Your task to perform on an android device: Clear all items from cart on ebay. Search for "usb-c to usb-a" on ebay, select the first entry, add it to the cart, then select checkout. Image 0: 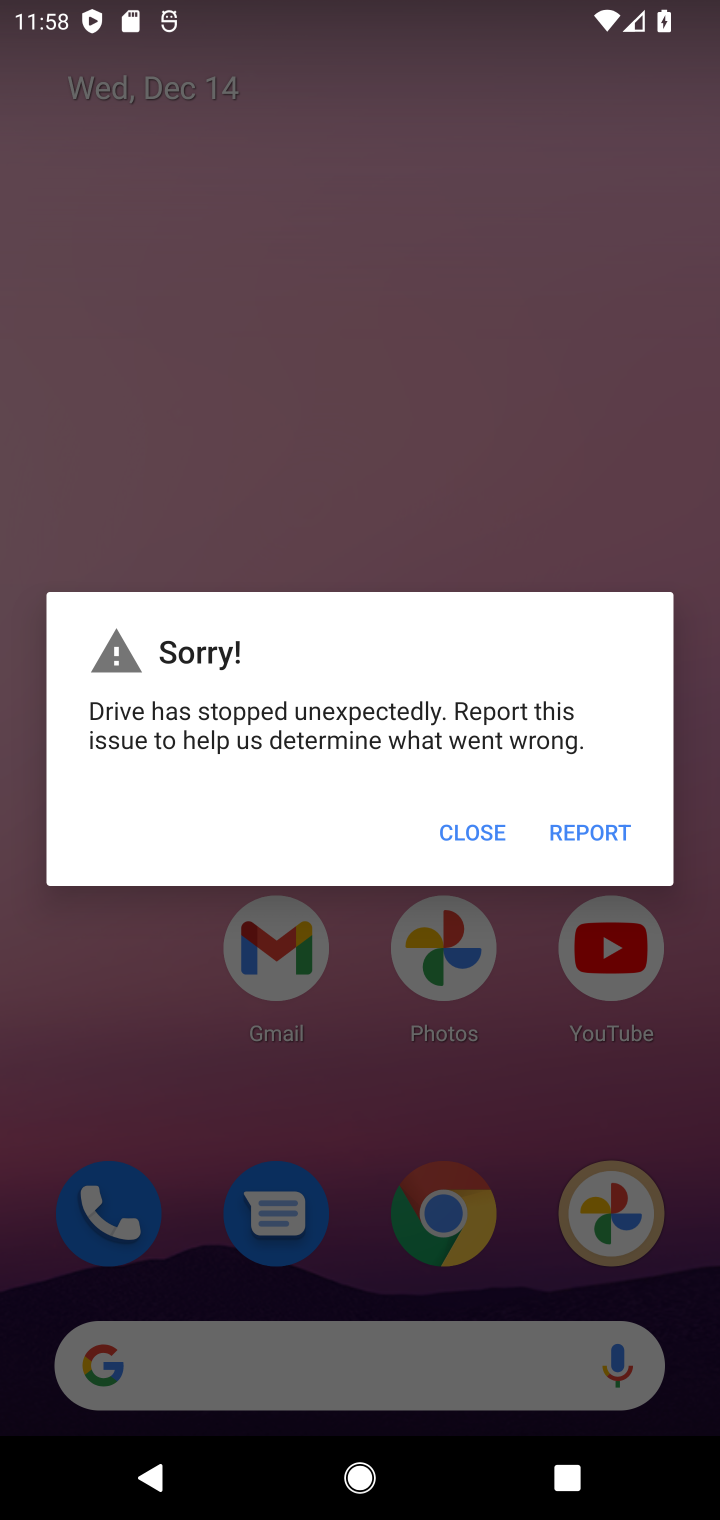
Step 0: click (456, 856)
Your task to perform on an android device: Clear all items from cart on ebay. Search for "usb-c to usb-a" on ebay, select the first entry, add it to the cart, then select checkout. Image 1: 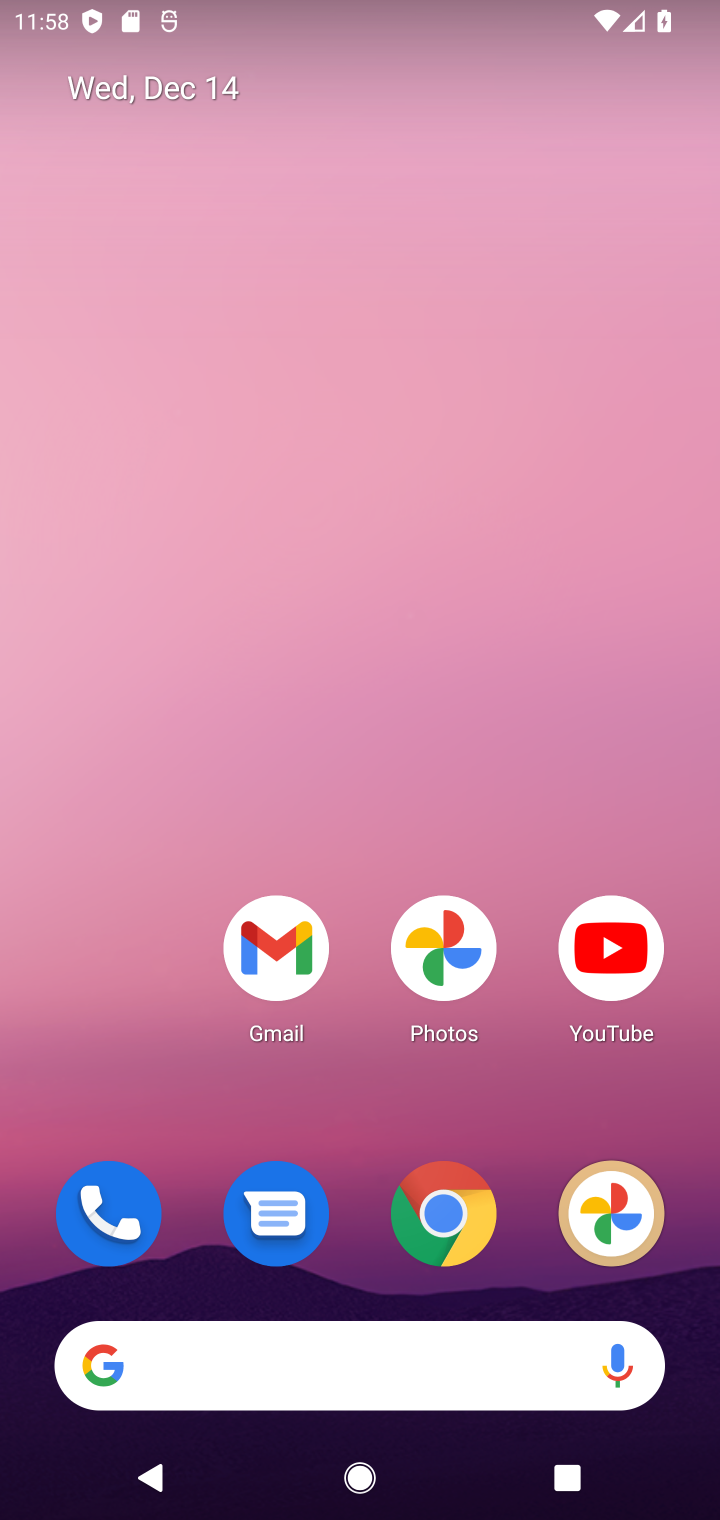
Step 1: click (451, 1253)
Your task to perform on an android device: Clear all items from cart on ebay. Search for "usb-c to usb-a" on ebay, select the first entry, add it to the cart, then select checkout. Image 2: 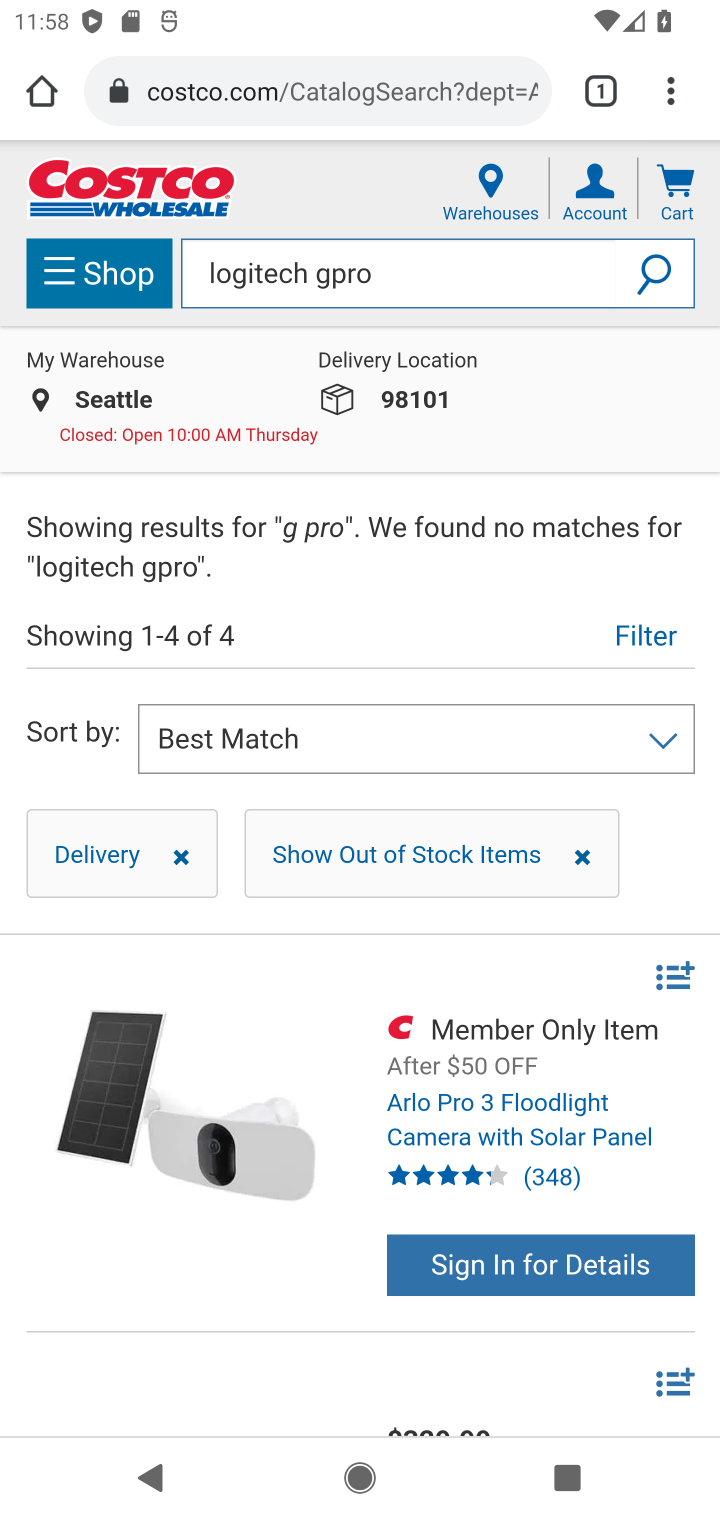
Step 2: click (251, 107)
Your task to perform on an android device: Clear all items from cart on ebay. Search for "usb-c to usb-a" on ebay, select the first entry, add it to the cart, then select checkout. Image 3: 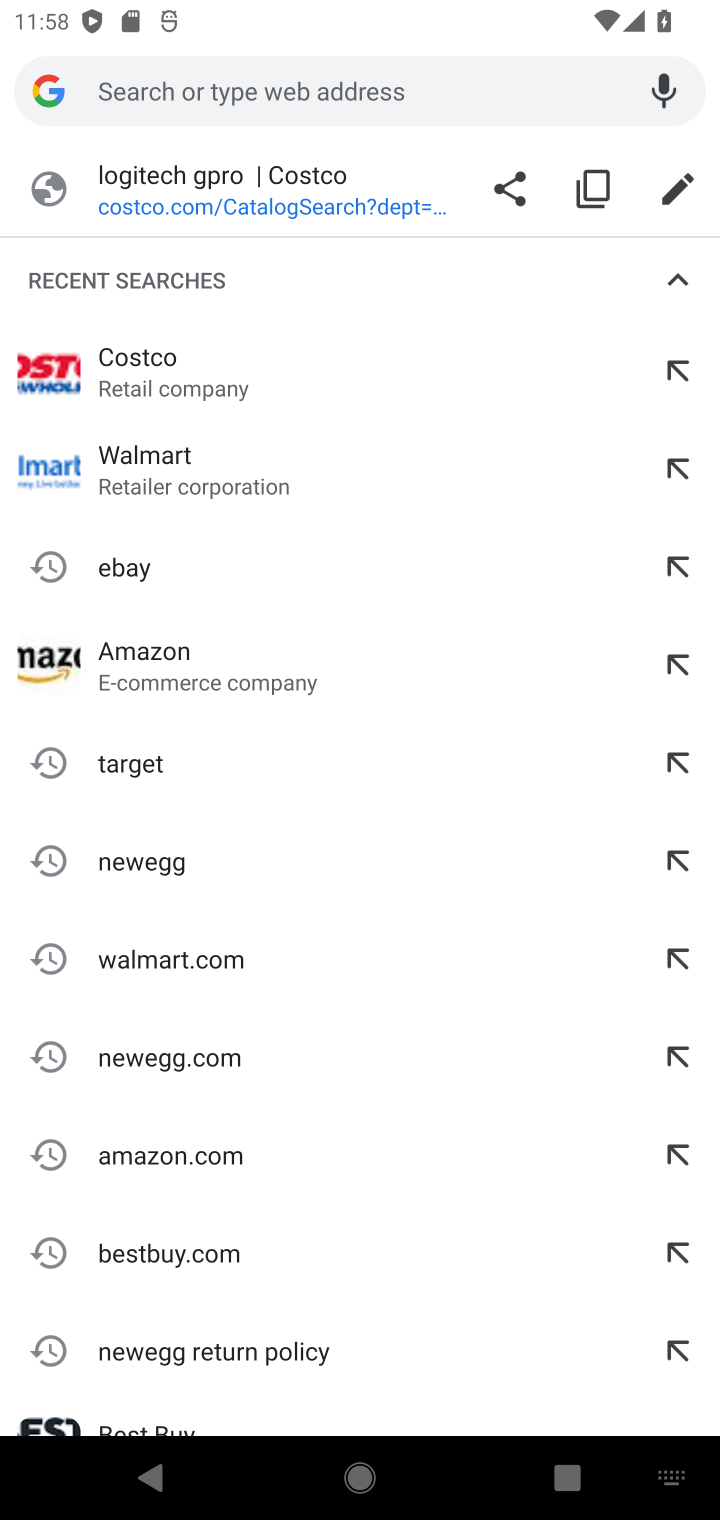
Step 3: click (239, 562)
Your task to perform on an android device: Clear all items from cart on ebay. Search for "usb-c to usb-a" on ebay, select the first entry, add it to the cart, then select checkout. Image 4: 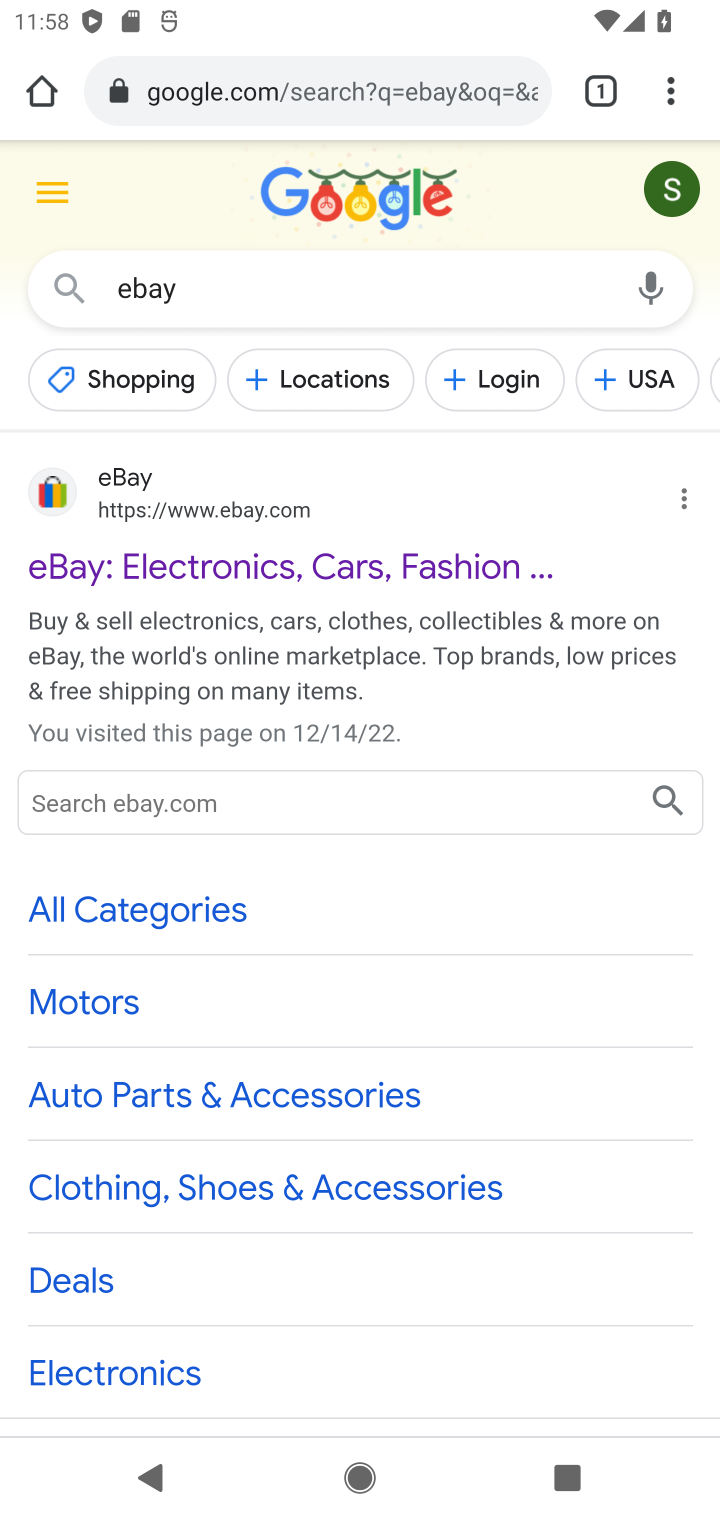
Step 4: click (251, 553)
Your task to perform on an android device: Clear all items from cart on ebay. Search for "usb-c to usb-a" on ebay, select the first entry, add it to the cart, then select checkout. Image 5: 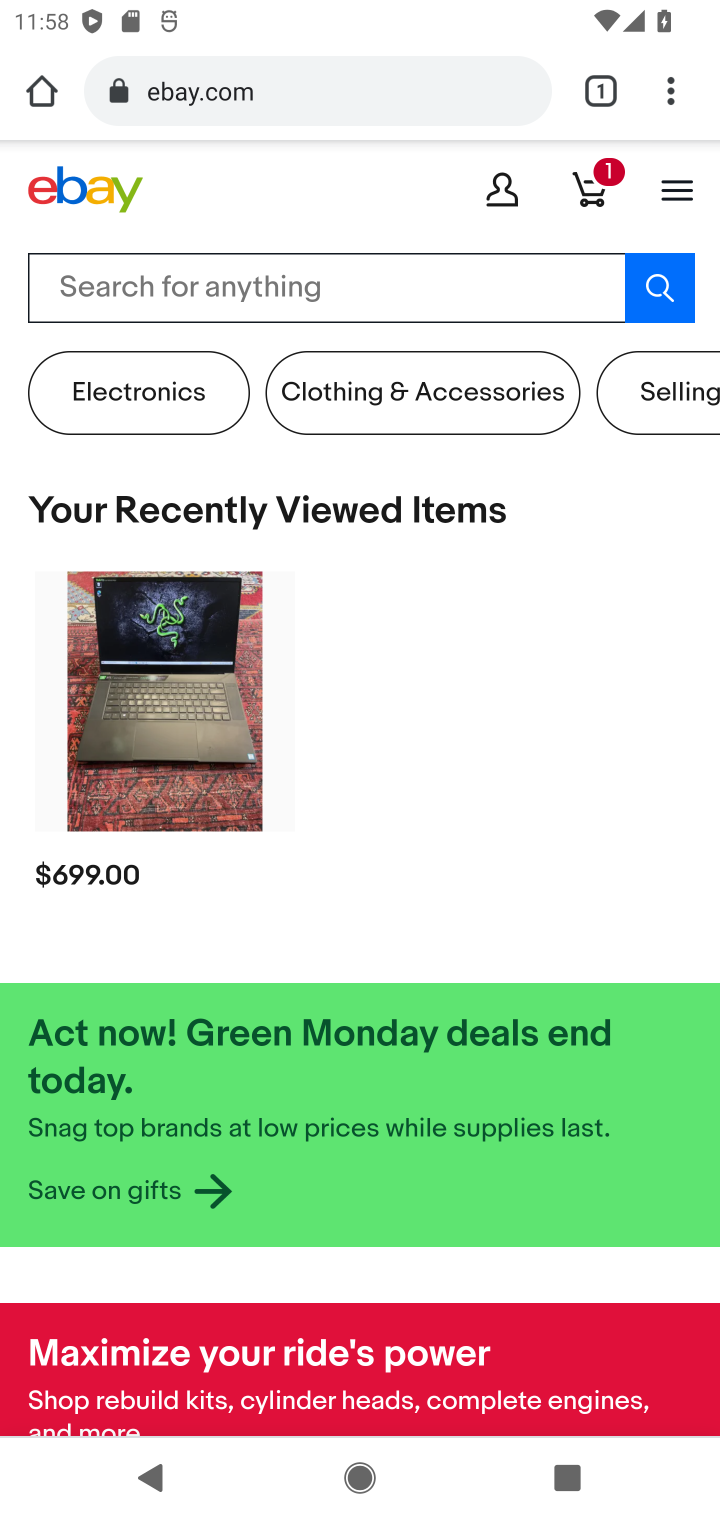
Step 5: click (372, 303)
Your task to perform on an android device: Clear all items from cart on ebay. Search for "usb-c to usb-a" on ebay, select the first entry, add it to the cart, then select checkout. Image 6: 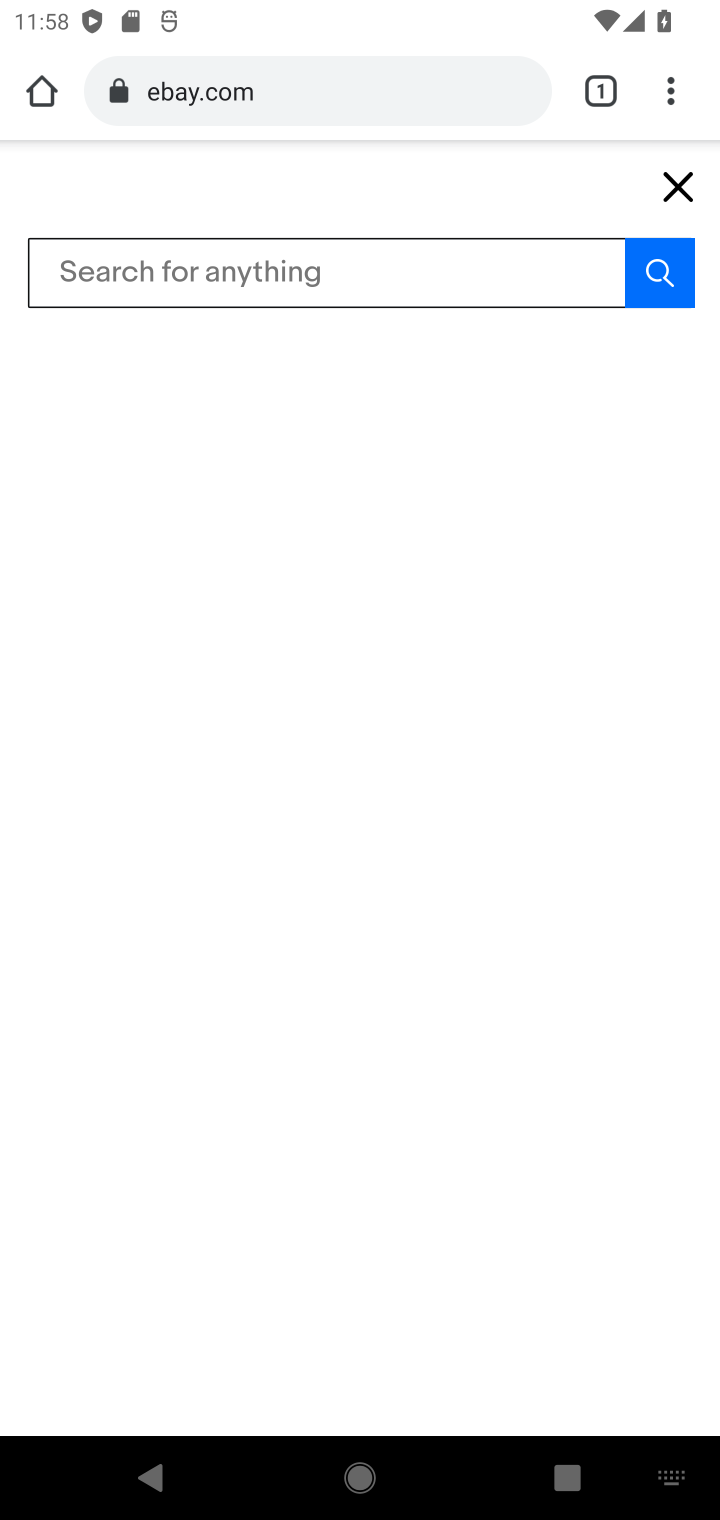
Step 6: type "usb-a "
Your task to perform on an android device: Clear all items from cart on ebay. Search for "usb-c to usb-a" on ebay, select the first entry, add it to the cart, then select checkout. Image 7: 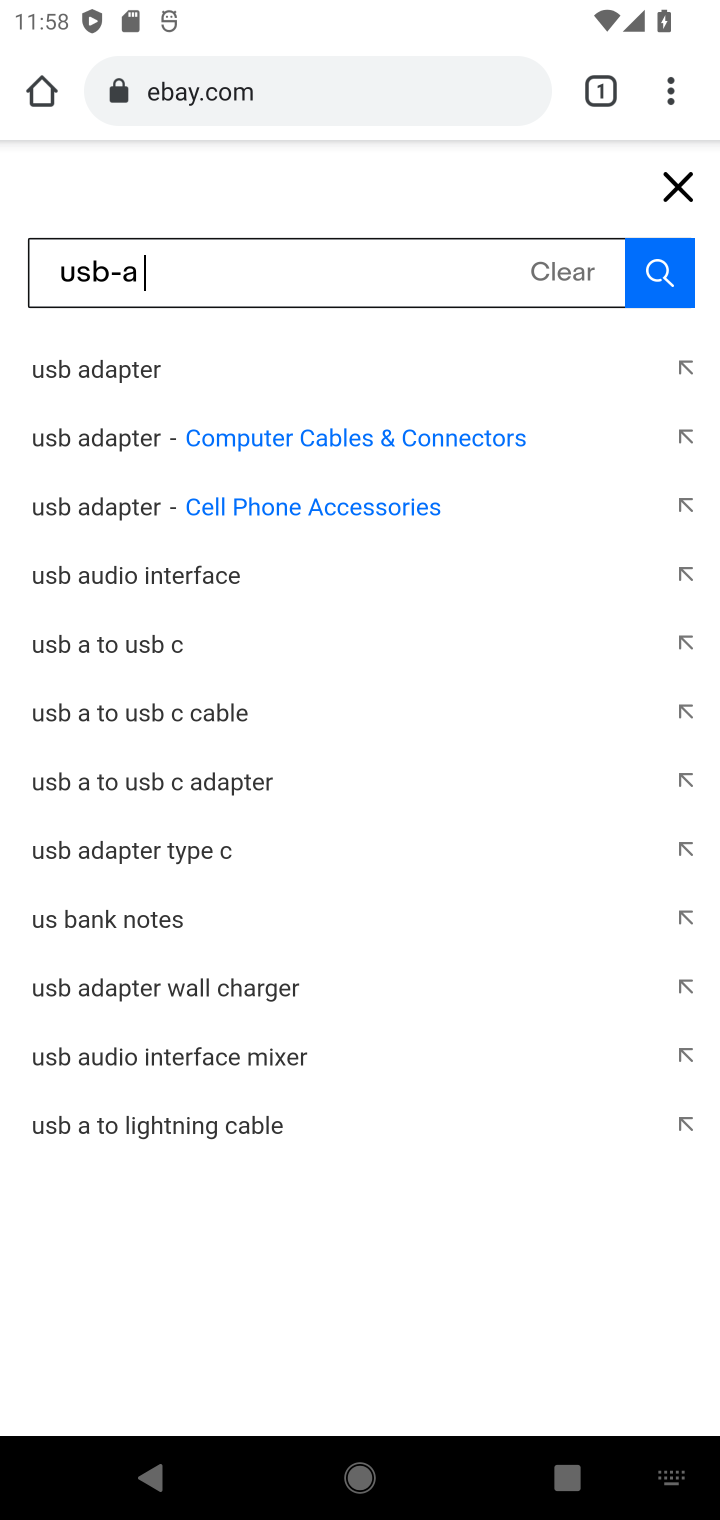
Step 7: type "to usb-c"
Your task to perform on an android device: Clear all items from cart on ebay. Search for "usb-c to usb-a" on ebay, select the first entry, add it to the cart, then select checkout. Image 8: 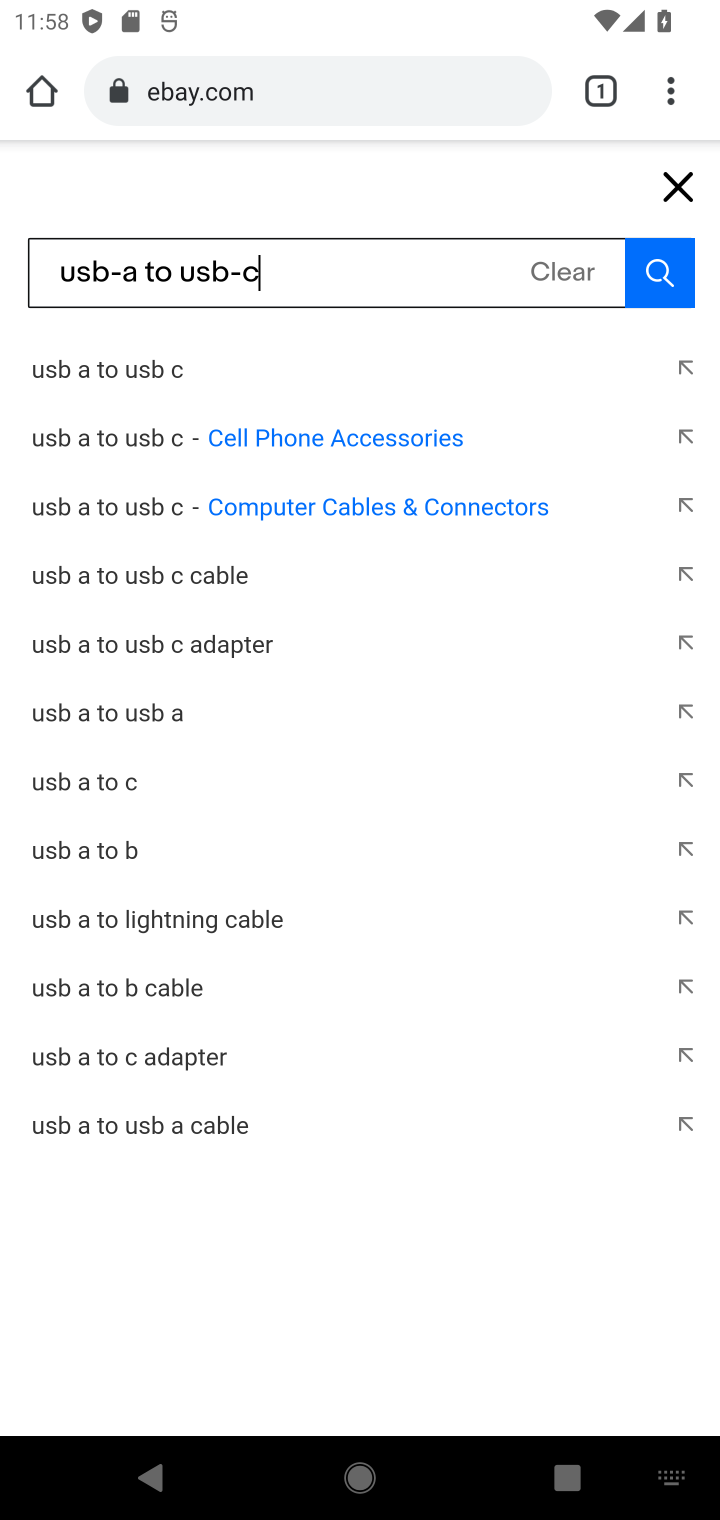
Step 8: click (152, 381)
Your task to perform on an android device: Clear all items from cart on ebay. Search for "usb-c to usb-a" on ebay, select the first entry, add it to the cart, then select checkout. Image 9: 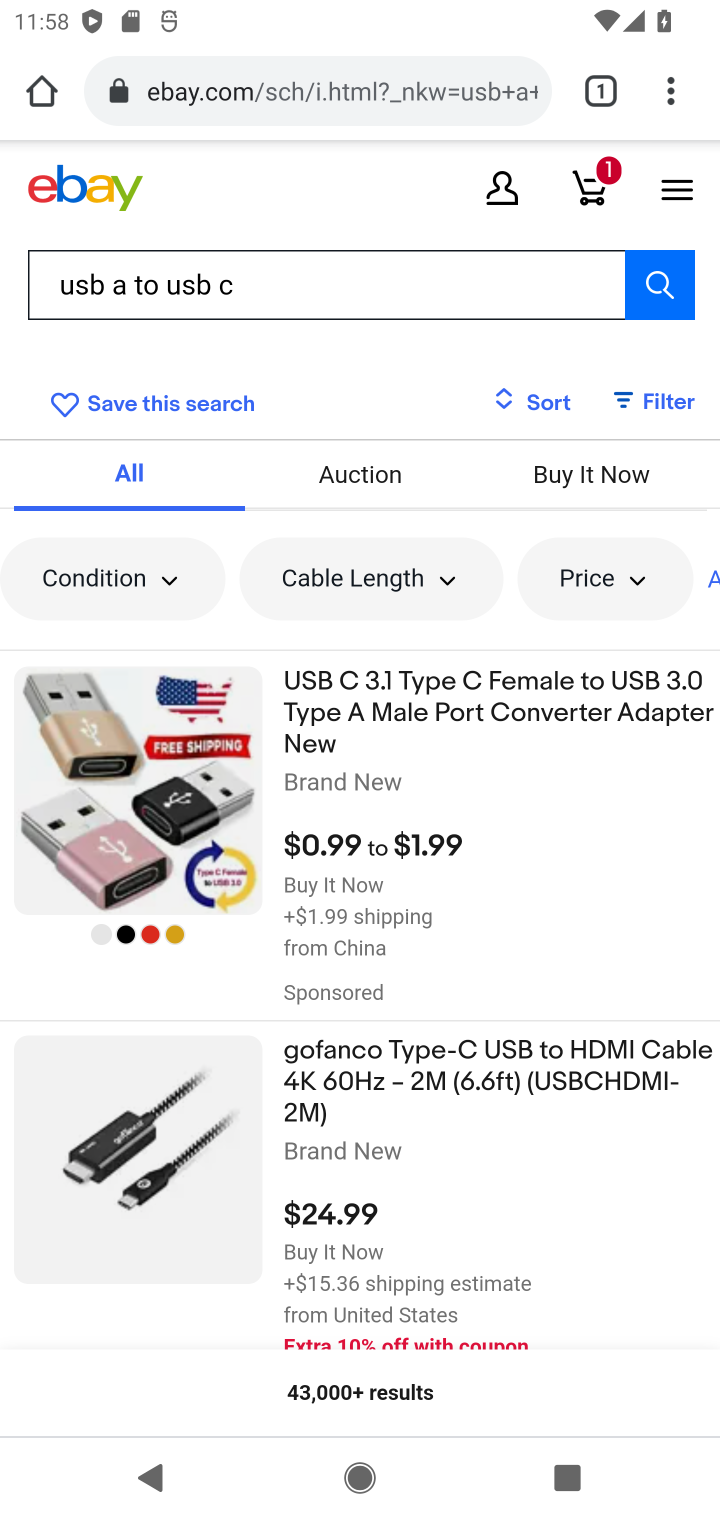
Step 9: click (356, 720)
Your task to perform on an android device: Clear all items from cart on ebay. Search for "usb-c to usb-a" on ebay, select the first entry, add it to the cart, then select checkout. Image 10: 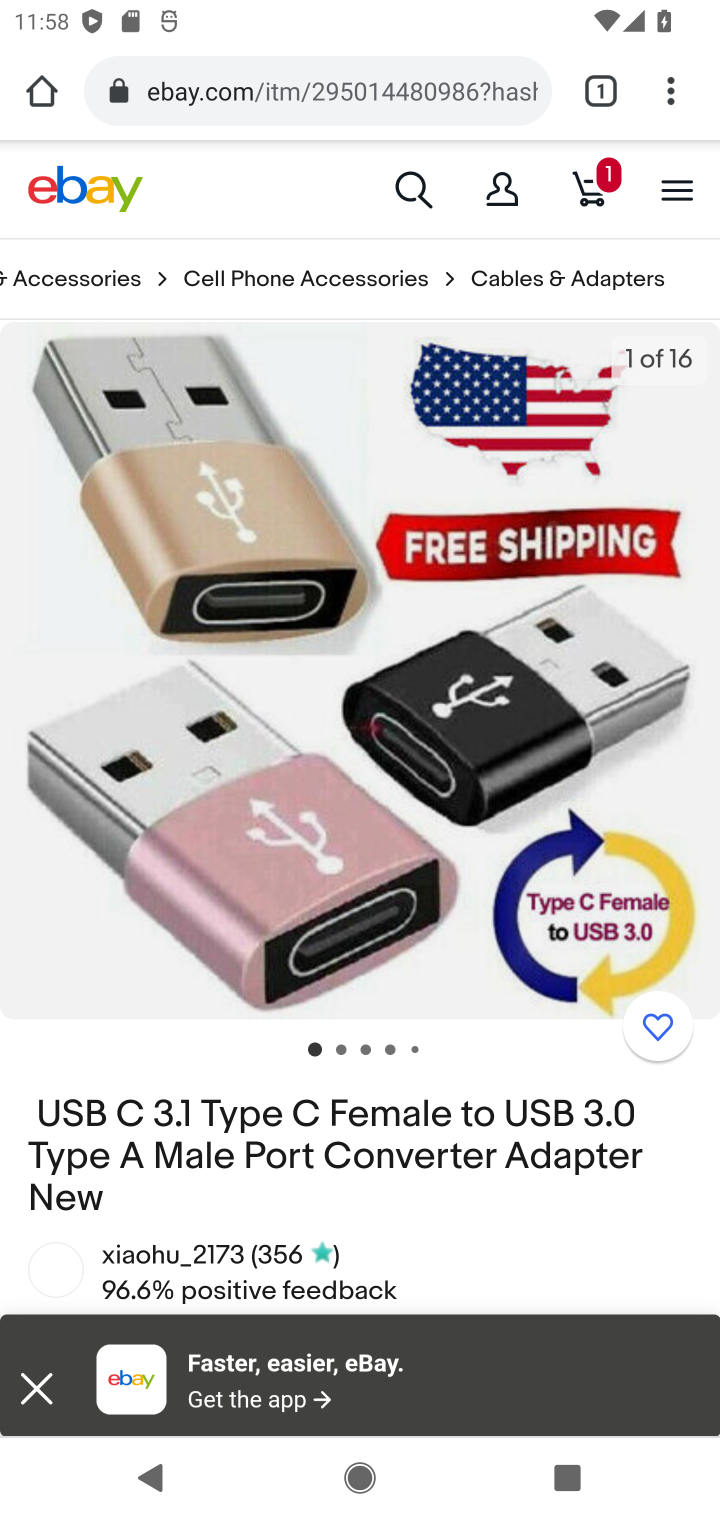
Step 10: drag from (529, 1362) to (486, 628)
Your task to perform on an android device: Clear all items from cart on ebay. Search for "usb-c to usb-a" on ebay, select the first entry, add it to the cart, then select checkout. Image 11: 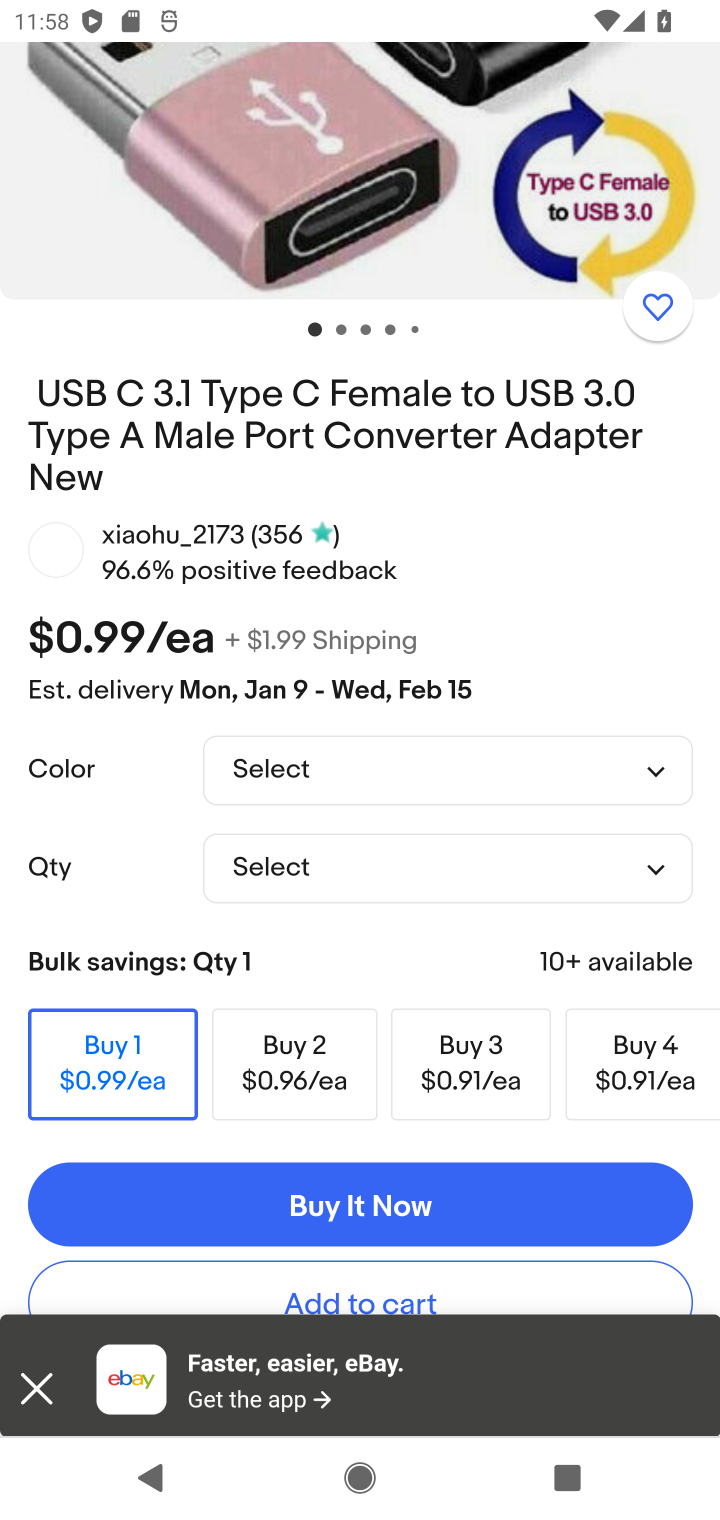
Step 11: click (407, 1278)
Your task to perform on an android device: Clear all items from cart on ebay. Search for "usb-c to usb-a" on ebay, select the first entry, add it to the cart, then select checkout. Image 12: 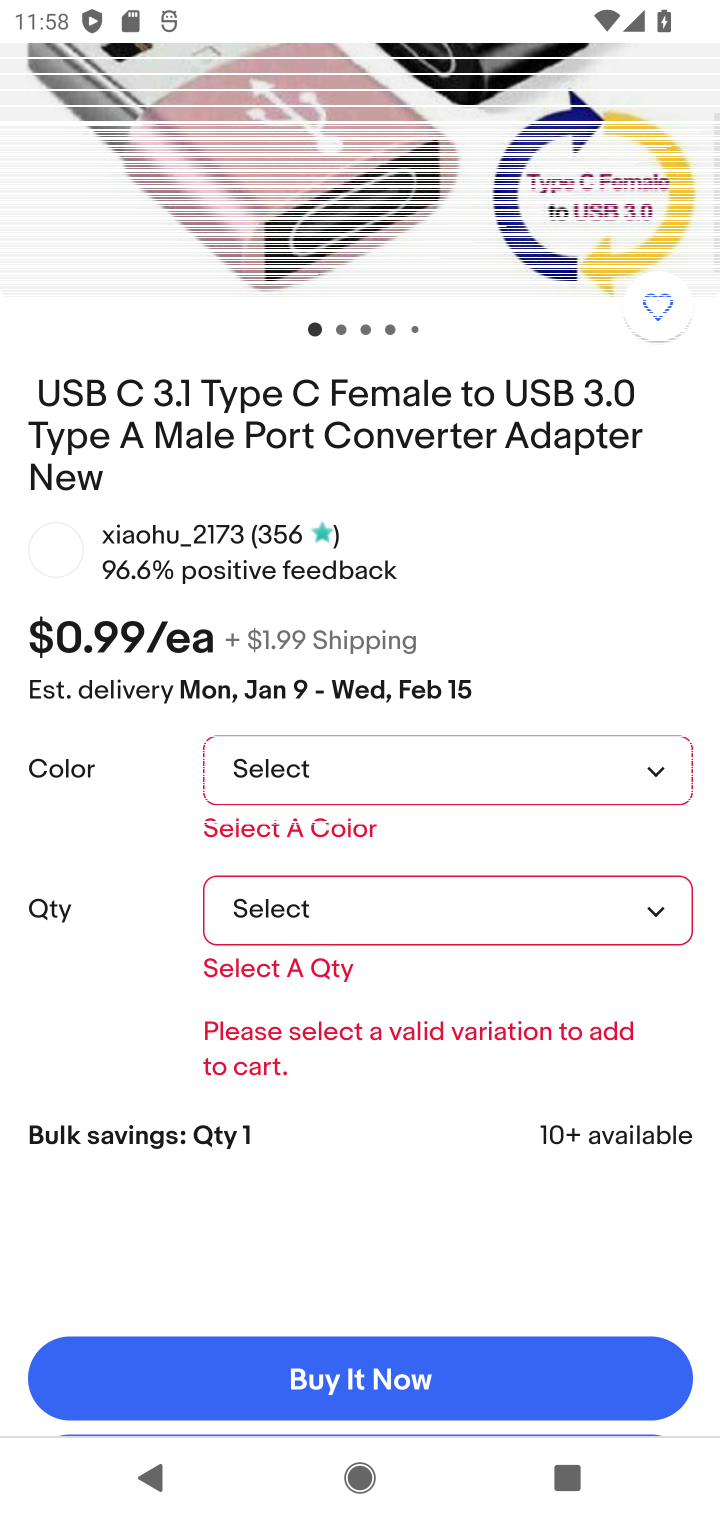
Step 12: task complete